Your task to perform on an android device: change your default location settings in chrome Image 0: 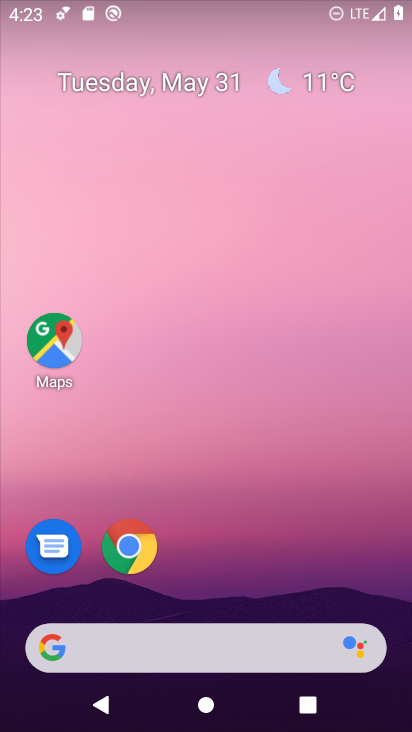
Step 0: click (123, 555)
Your task to perform on an android device: change your default location settings in chrome Image 1: 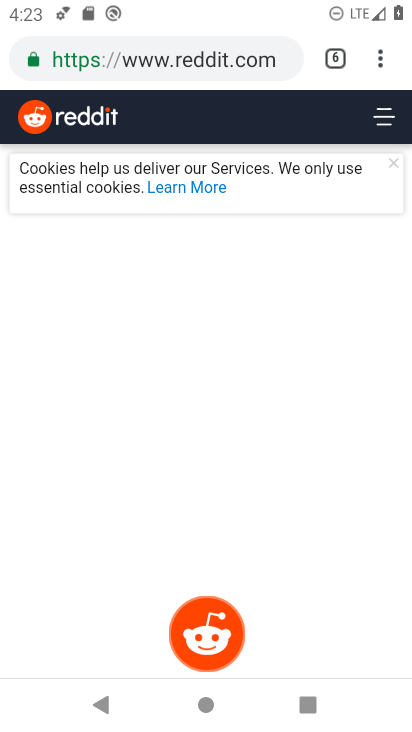
Step 1: click (379, 59)
Your task to perform on an android device: change your default location settings in chrome Image 2: 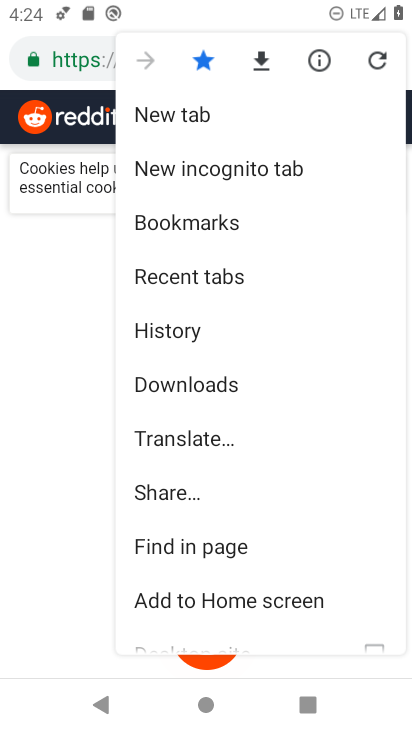
Step 2: drag from (230, 556) to (224, 52)
Your task to perform on an android device: change your default location settings in chrome Image 3: 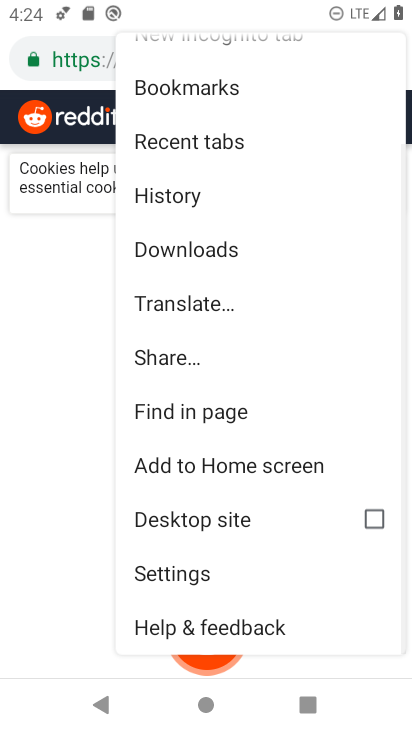
Step 3: click (225, 562)
Your task to perform on an android device: change your default location settings in chrome Image 4: 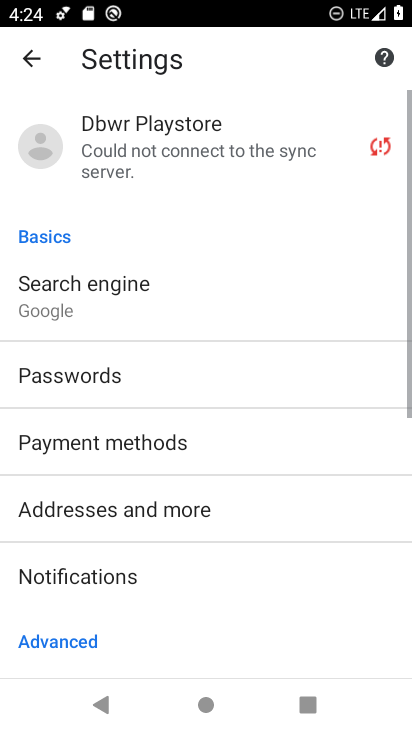
Step 4: drag from (174, 345) to (205, 18)
Your task to perform on an android device: change your default location settings in chrome Image 5: 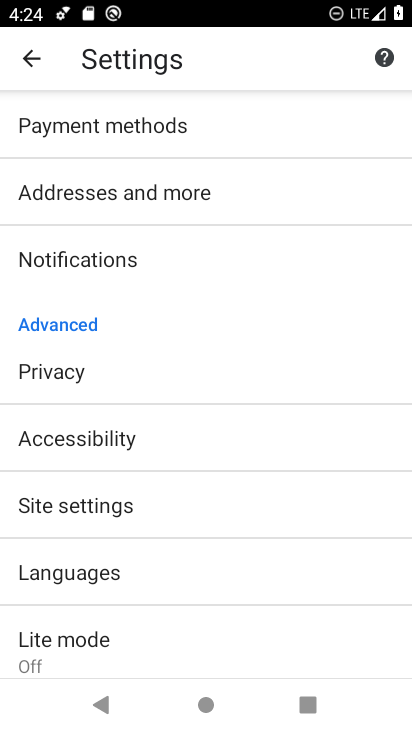
Step 5: click (125, 513)
Your task to perform on an android device: change your default location settings in chrome Image 6: 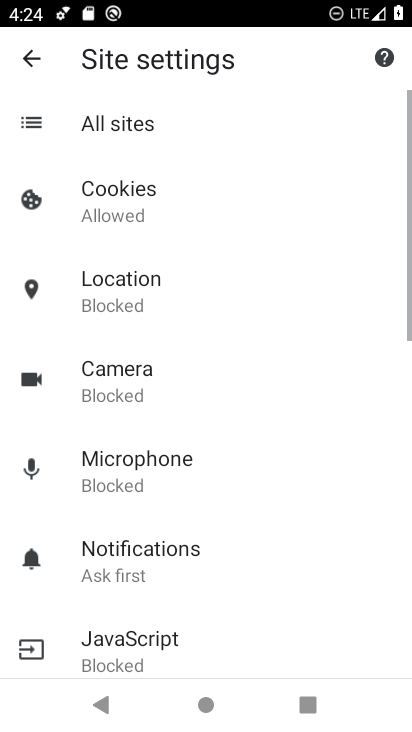
Step 6: click (154, 286)
Your task to perform on an android device: change your default location settings in chrome Image 7: 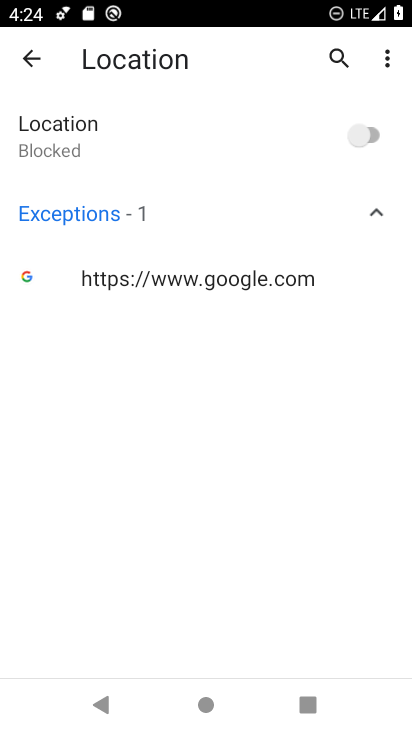
Step 7: click (358, 131)
Your task to perform on an android device: change your default location settings in chrome Image 8: 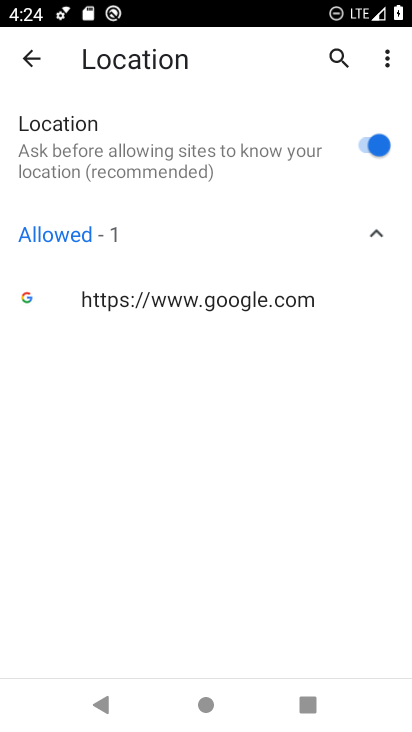
Step 8: task complete